Your task to perform on an android device: turn pop-ups on in chrome Image 0: 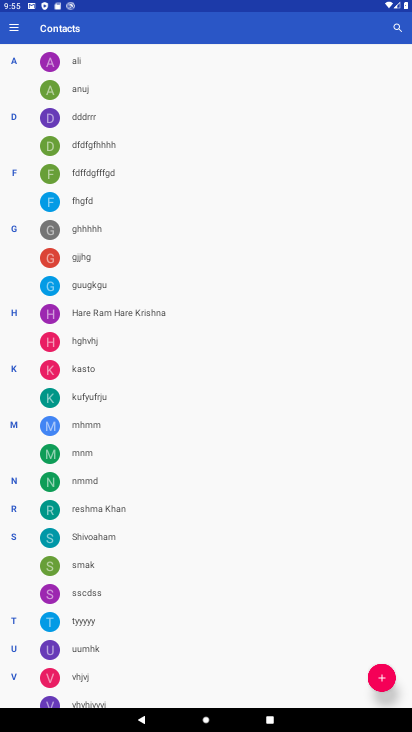
Step 0: press home button
Your task to perform on an android device: turn pop-ups on in chrome Image 1: 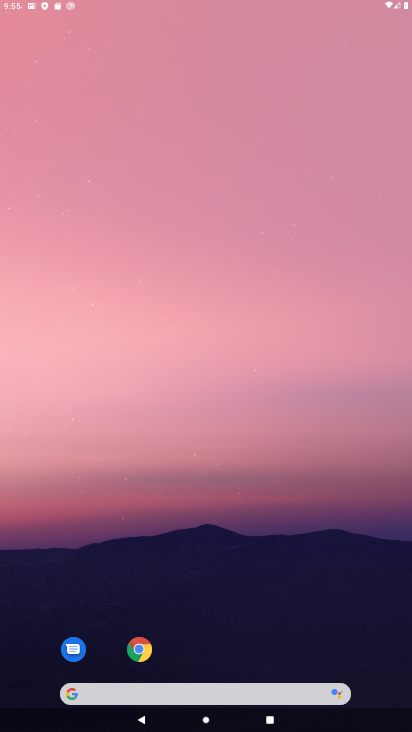
Step 1: drag from (284, 414) to (323, 160)
Your task to perform on an android device: turn pop-ups on in chrome Image 2: 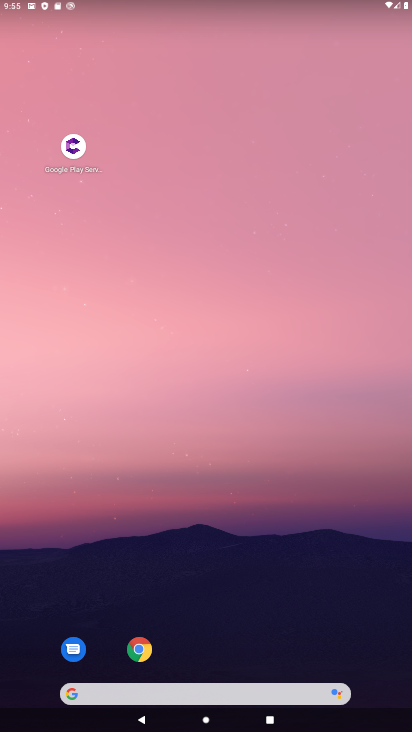
Step 2: drag from (300, 581) to (356, 189)
Your task to perform on an android device: turn pop-ups on in chrome Image 3: 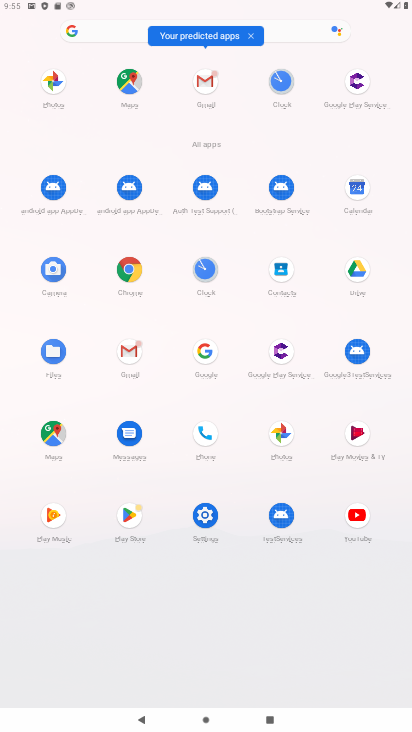
Step 3: click (129, 271)
Your task to perform on an android device: turn pop-ups on in chrome Image 4: 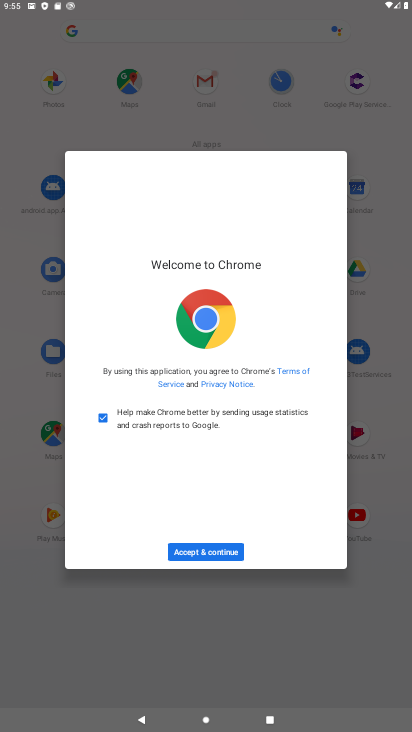
Step 4: click (184, 546)
Your task to perform on an android device: turn pop-ups on in chrome Image 5: 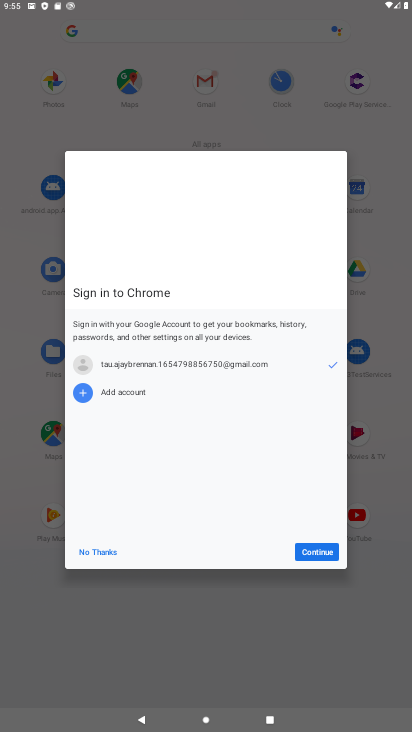
Step 5: click (100, 562)
Your task to perform on an android device: turn pop-ups on in chrome Image 6: 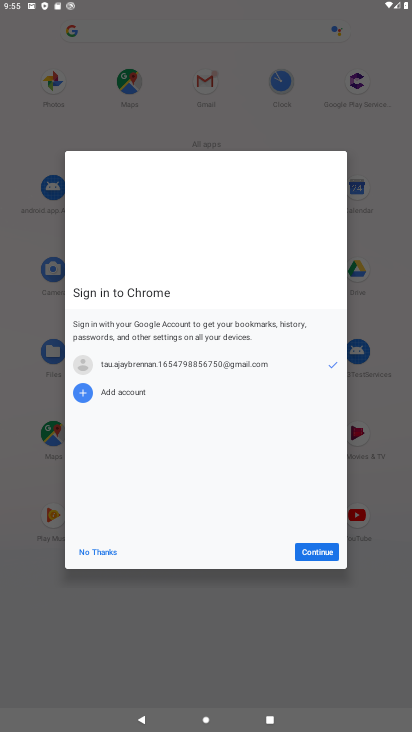
Step 6: click (104, 554)
Your task to perform on an android device: turn pop-ups on in chrome Image 7: 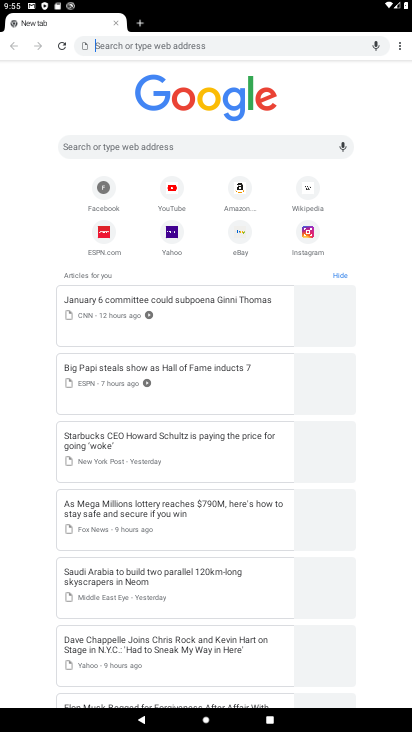
Step 7: drag from (406, 49) to (310, 211)
Your task to perform on an android device: turn pop-ups on in chrome Image 8: 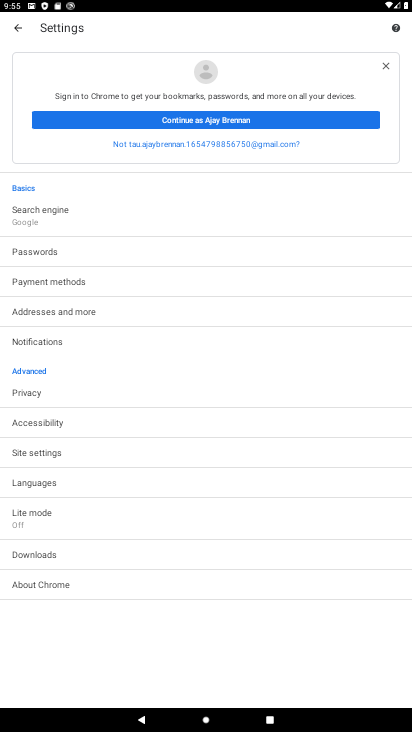
Step 8: click (53, 453)
Your task to perform on an android device: turn pop-ups on in chrome Image 9: 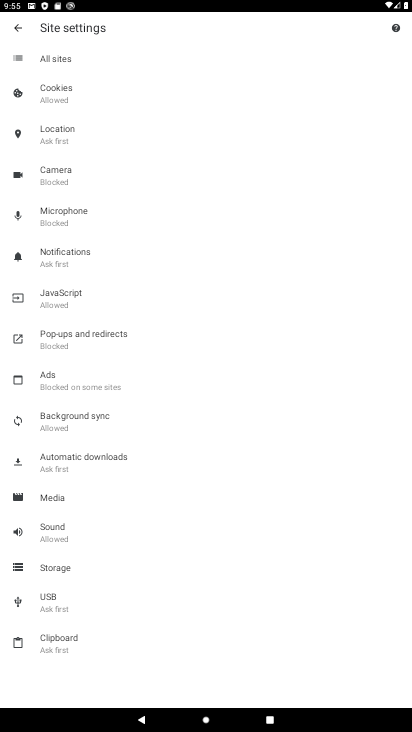
Step 9: click (70, 350)
Your task to perform on an android device: turn pop-ups on in chrome Image 10: 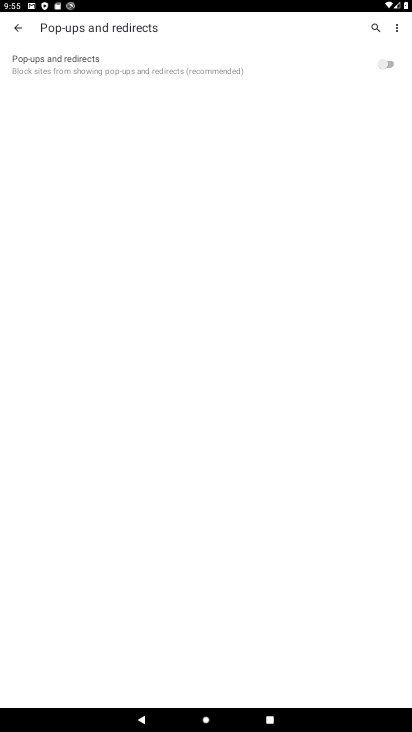
Step 10: click (384, 65)
Your task to perform on an android device: turn pop-ups on in chrome Image 11: 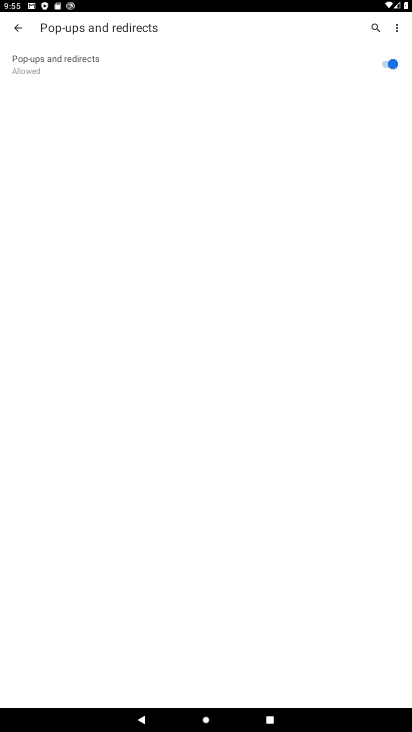
Step 11: task complete